Your task to perform on an android device: Go to Android settings Image 0: 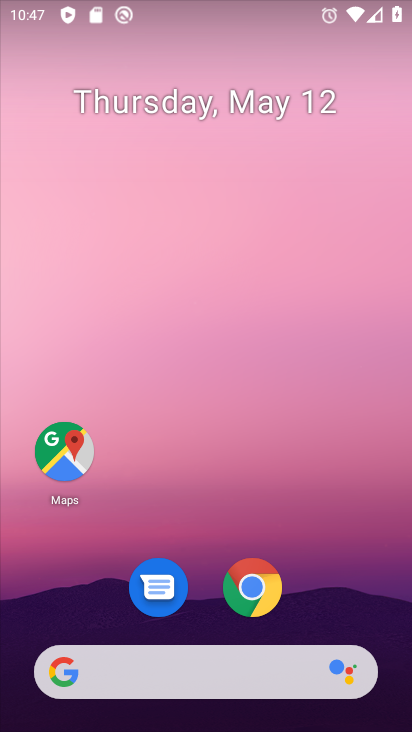
Step 0: drag from (353, 690) to (348, 153)
Your task to perform on an android device: Go to Android settings Image 1: 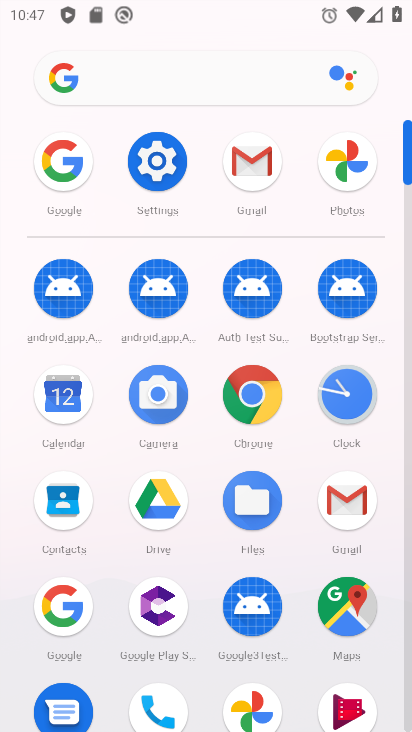
Step 1: click (166, 174)
Your task to perform on an android device: Go to Android settings Image 2: 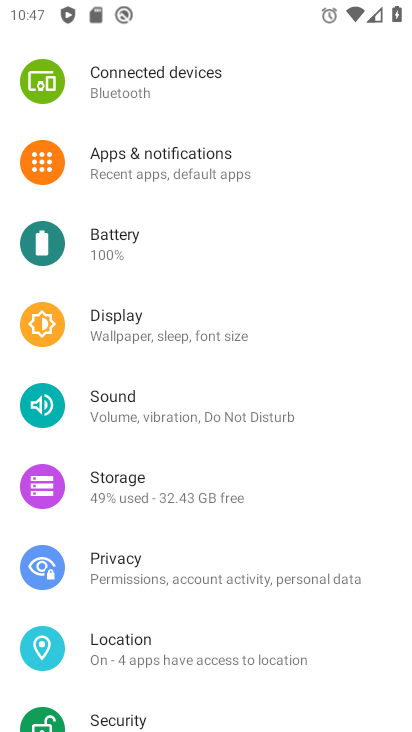
Step 2: drag from (190, 547) to (202, 93)
Your task to perform on an android device: Go to Android settings Image 3: 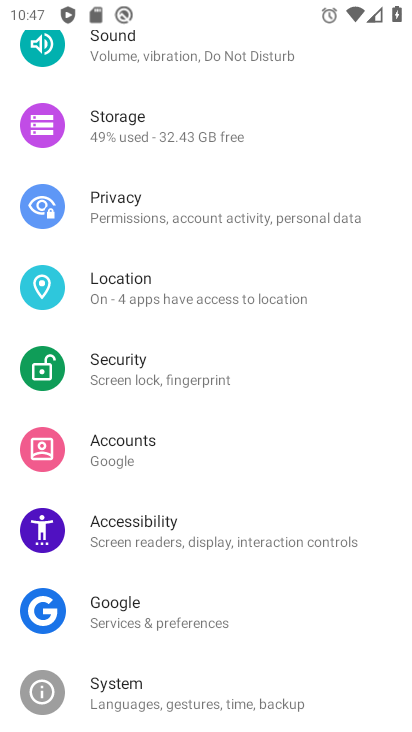
Step 3: drag from (191, 653) to (268, 175)
Your task to perform on an android device: Go to Android settings Image 4: 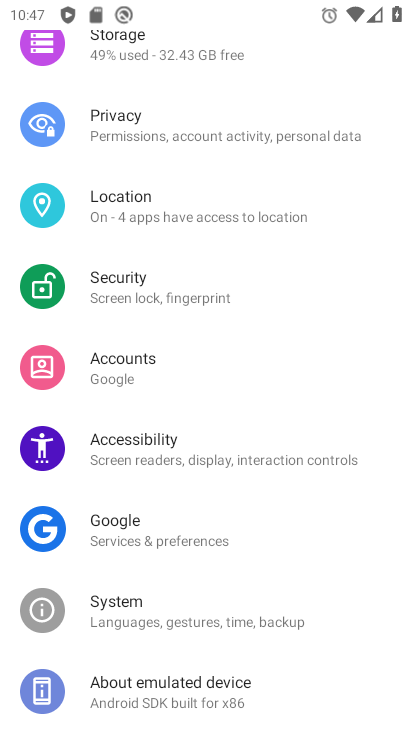
Step 4: click (162, 706)
Your task to perform on an android device: Go to Android settings Image 5: 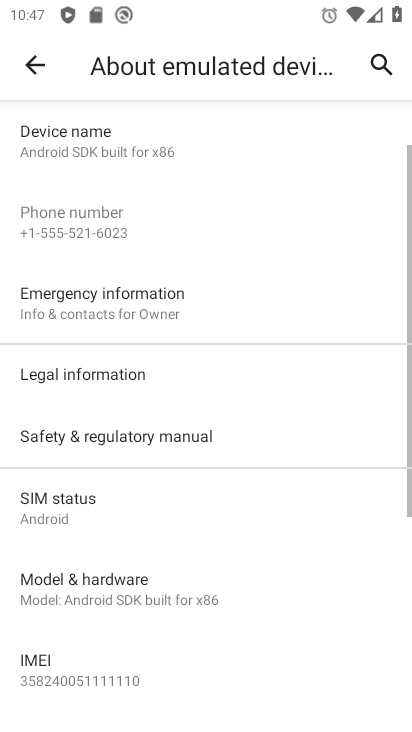
Step 5: task complete